Your task to perform on an android device: toggle airplane mode Image 0: 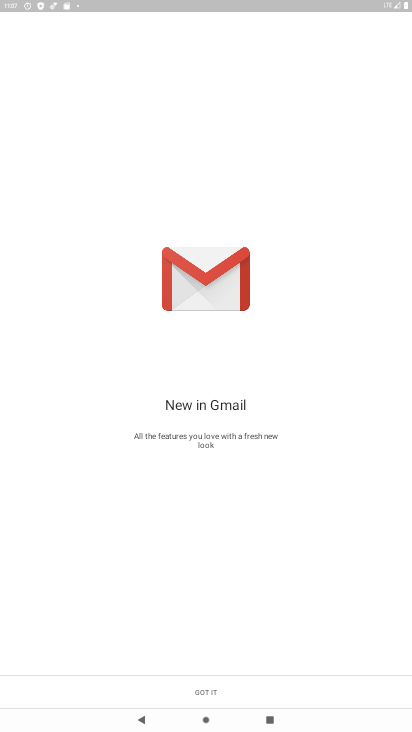
Step 0: press home button
Your task to perform on an android device: toggle airplane mode Image 1: 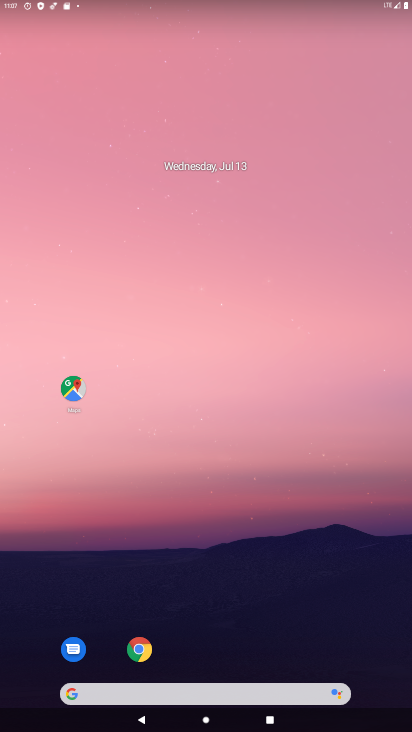
Step 1: drag from (188, 687) to (172, 185)
Your task to perform on an android device: toggle airplane mode Image 2: 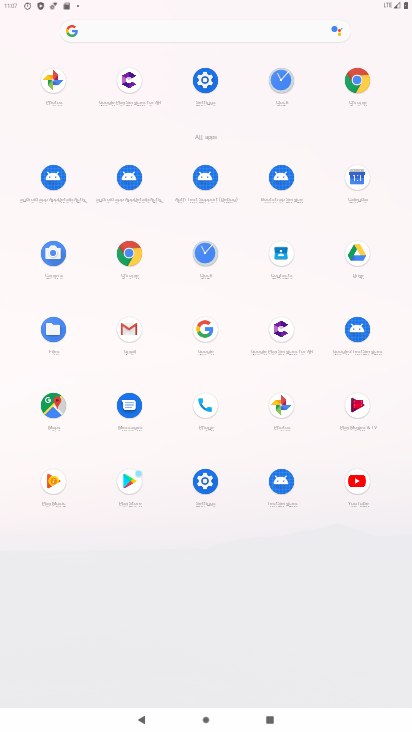
Step 2: click (203, 79)
Your task to perform on an android device: toggle airplane mode Image 3: 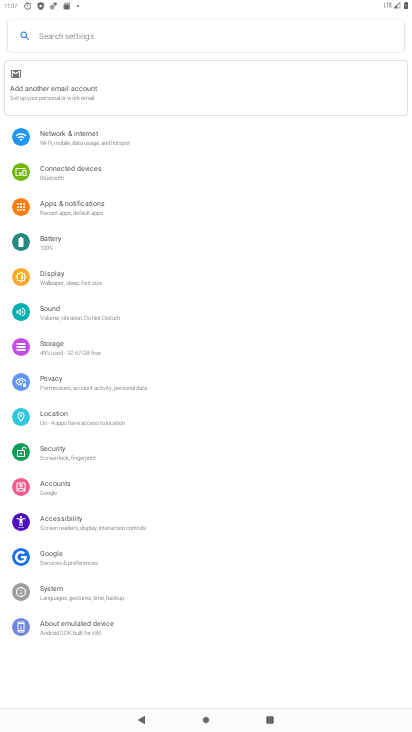
Step 3: click (85, 135)
Your task to perform on an android device: toggle airplane mode Image 4: 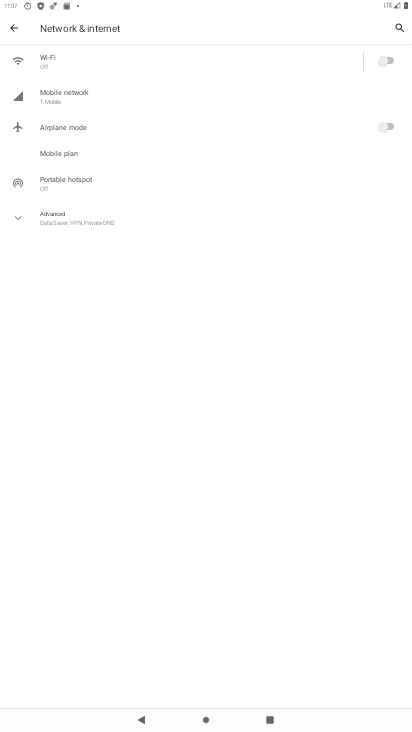
Step 4: click (384, 130)
Your task to perform on an android device: toggle airplane mode Image 5: 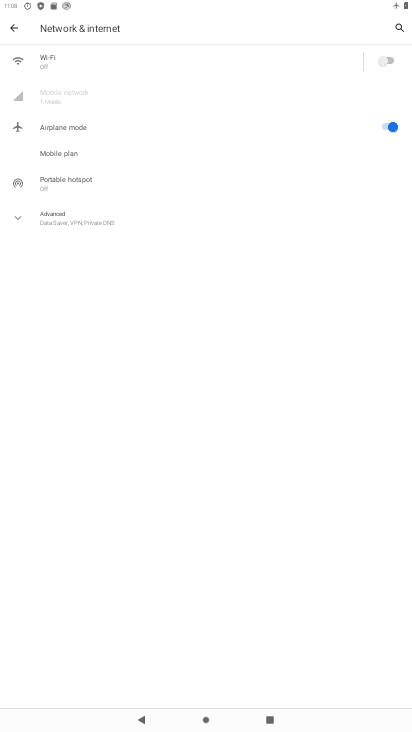
Step 5: task complete